Your task to perform on an android device: create a new album in the google photos Image 0: 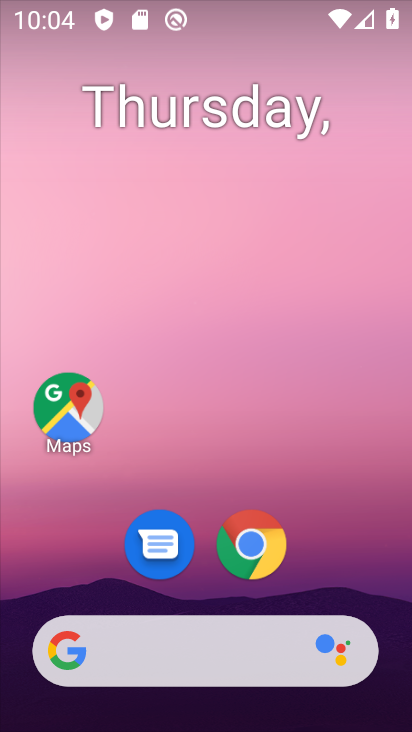
Step 0: drag from (207, 599) to (192, 196)
Your task to perform on an android device: create a new album in the google photos Image 1: 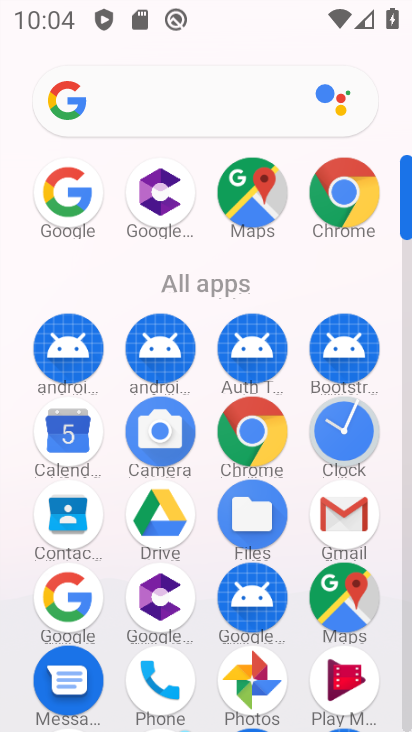
Step 1: click (254, 673)
Your task to perform on an android device: create a new album in the google photos Image 2: 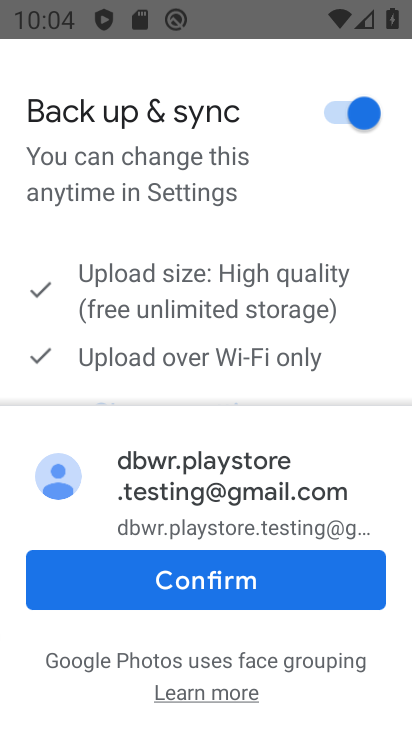
Step 2: click (208, 581)
Your task to perform on an android device: create a new album in the google photos Image 3: 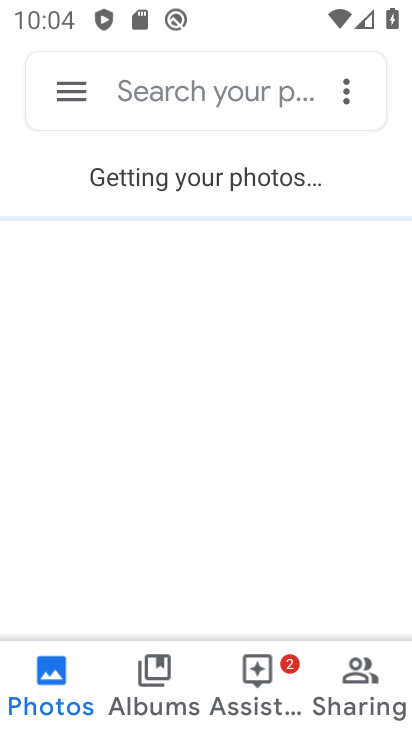
Step 3: click (153, 667)
Your task to perform on an android device: create a new album in the google photos Image 4: 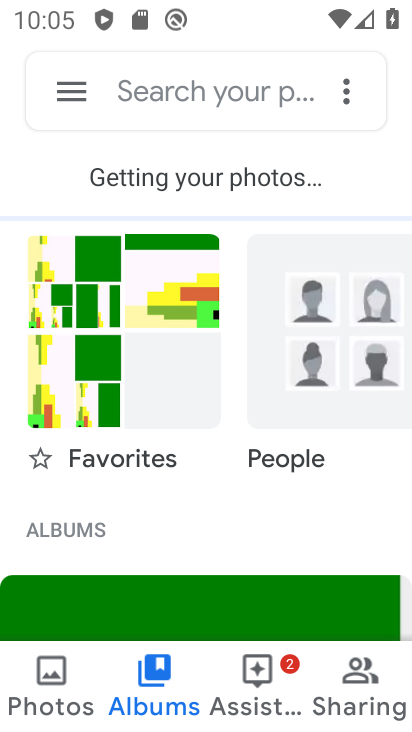
Step 4: click (348, 81)
Your task to perform on an android device: create a new album in the google photos Image 5: 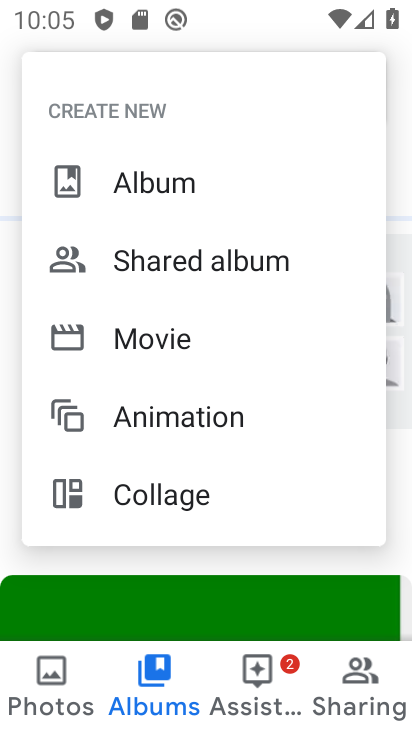
Step 5: click (184, 178)
Your task to perform on an android device: create a new album in the google photos Image 6: 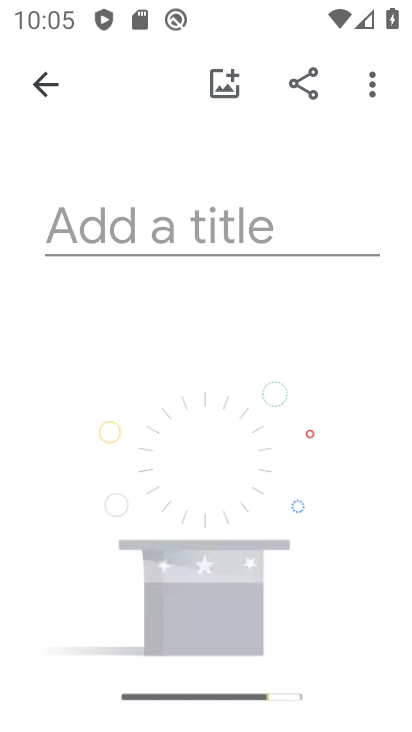
Step 6: drag from (271, 569) to (322, 237)
Your task to perform on an android device: create a new album in the google photos Image 7: 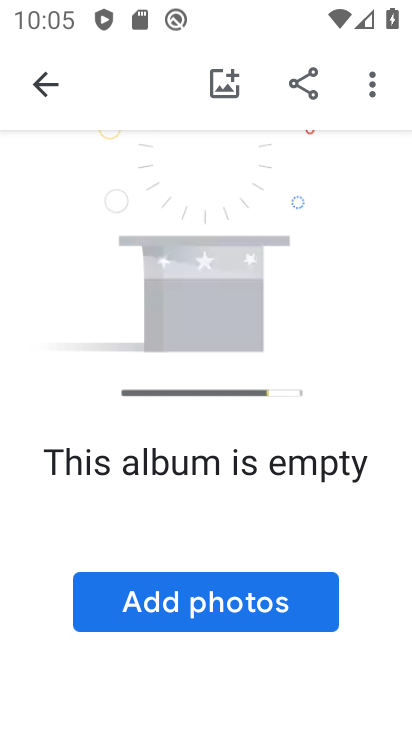
Step 7: click (213, 604)
Your task to perform on an android device: create a new album in the google photos Image 8: 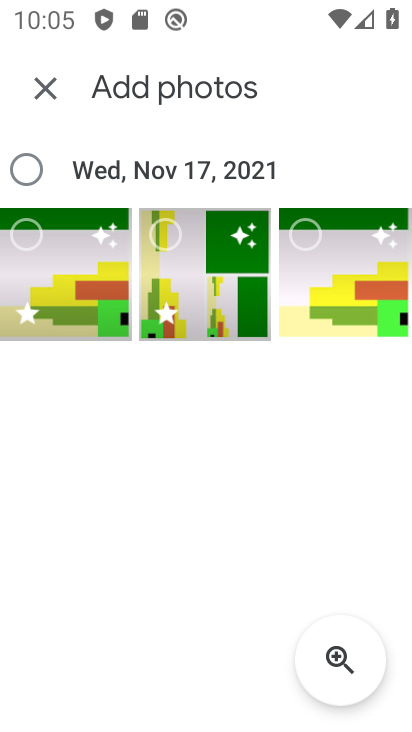
Step 8: click (19, 162)
Your task to perform on an android device: create a new album in the google photos Image 9: 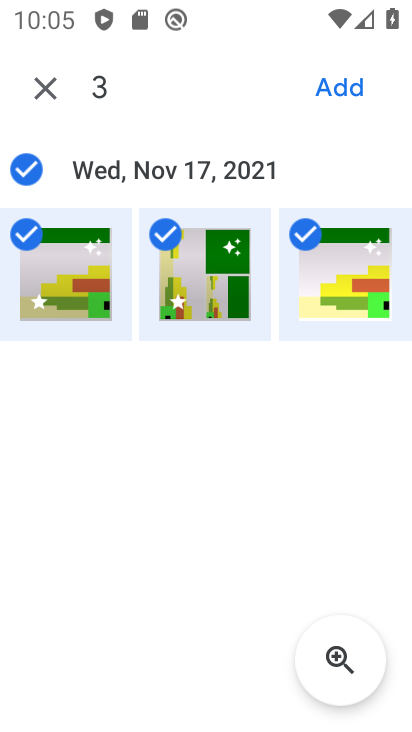
Step 9: click (340, 77)
Your task to perform on an android device: create a new album in the google photos Image 10: 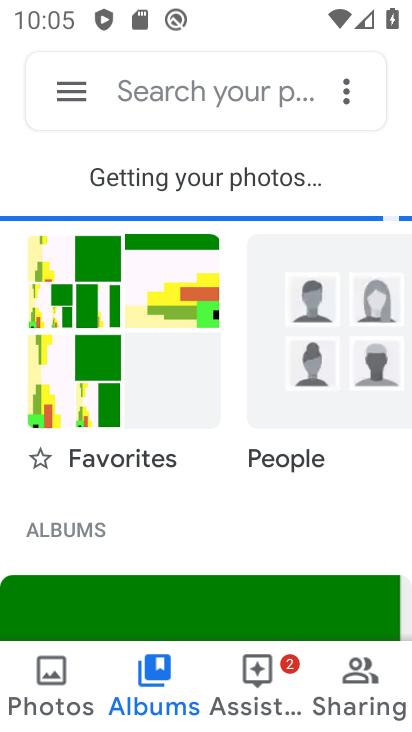
Step 10: click (343, 88)
Your task to perform on an android device: create a new album in the google photos Image 11: 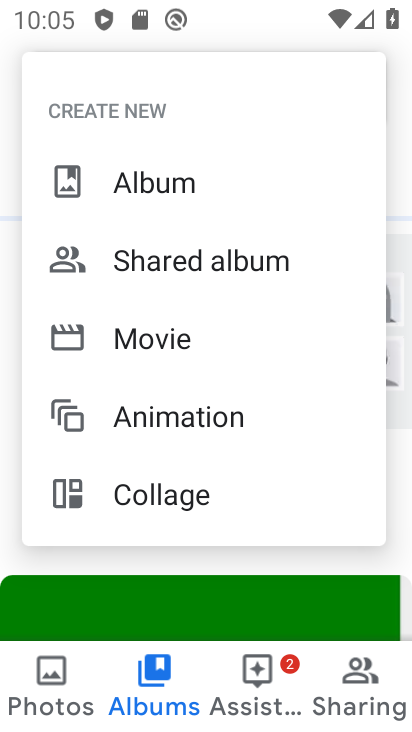
Step 11: click (99, 175)
Your task to perform on an android device: create a new album in the google photos Image 12: 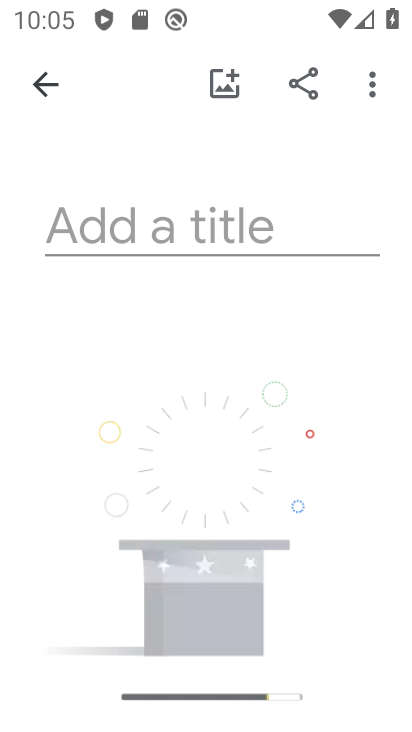
Step 12: drag from (89, 596) to (127, 141)
Your task to perform on an android device: create a new album in the google photos Image 13: 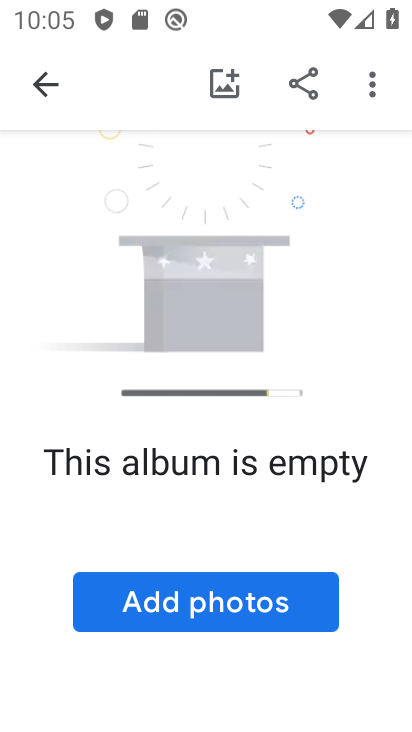
Step 13: click (209, 605)
Your task to perform on an android device: create a new album in the google photos Image 14: 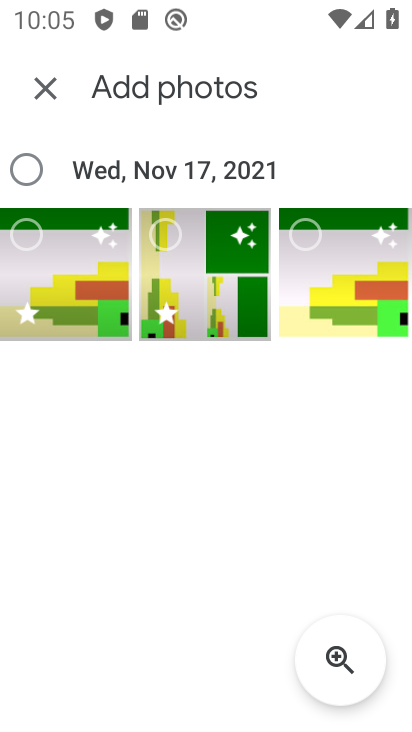
Step 14: click (24, 166)
Your task to perform on an android device: create a new album in the google photos Image 15: 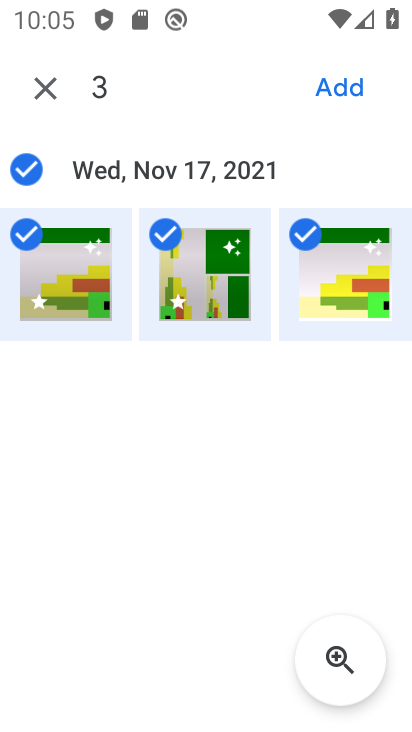
Step 15: click (345, 91)
Your task to perform on an android device: create a new album in the google photos Image 16: 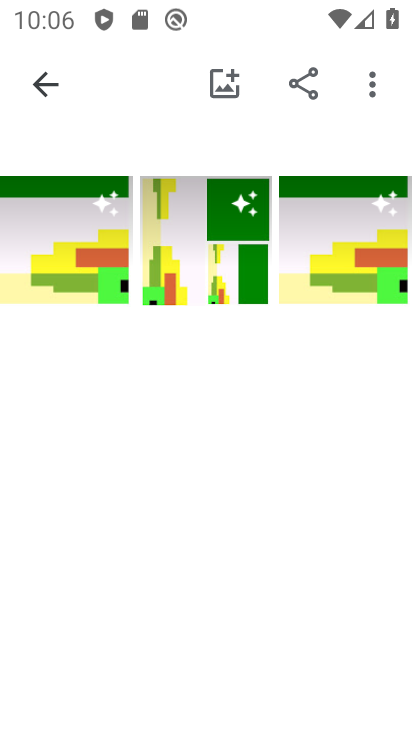
Step 16: task complete